Your task to perform on an android device: Show the shopping cart on target.com. Search for logitech g502 on target.com, select the first entry, add it to the cart, then select checkout. Image 0: 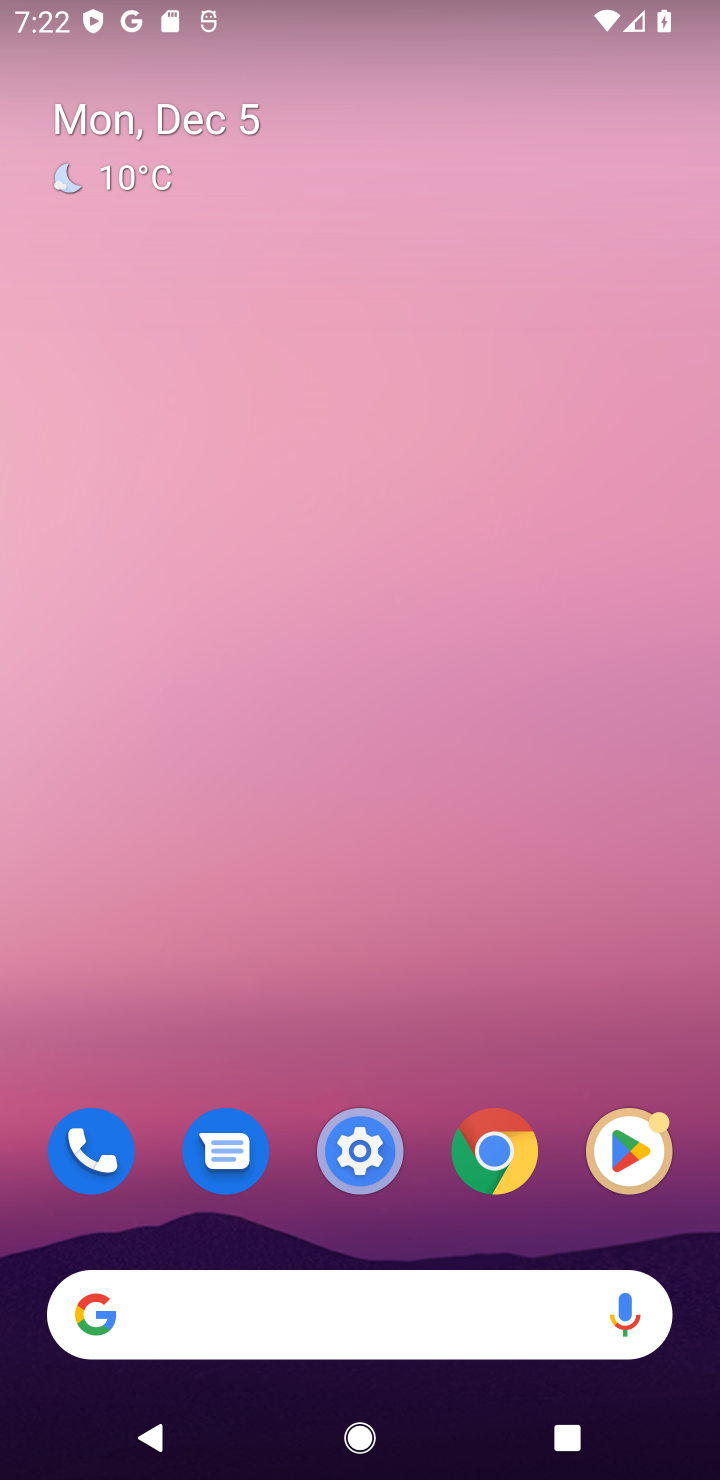
Step 0: click (370, 1342)
Your task to perform on an android device: Show the shopping cart on target.com. Search for logitech g502 on target.com, select the first entry, add it to the cart, then select checkout. Image 1: 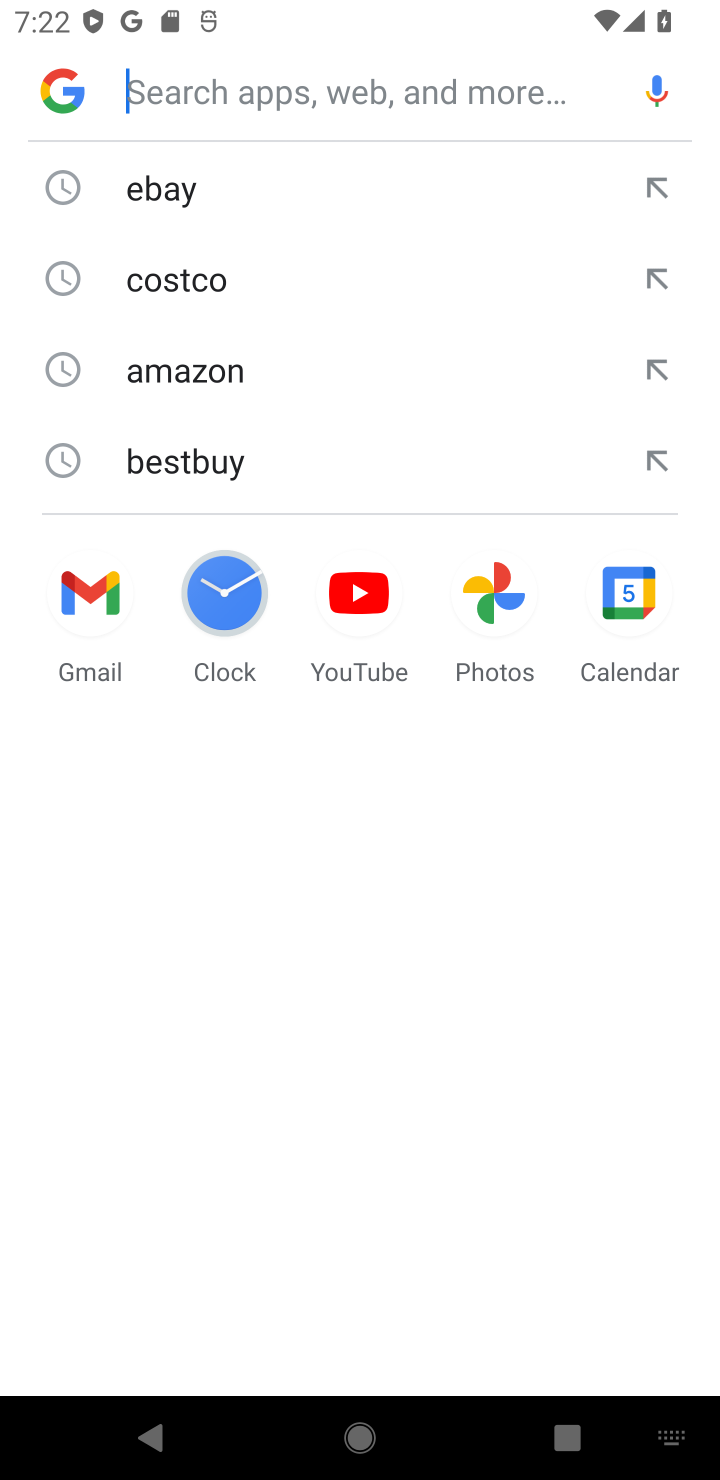
Step 1: type "target"
Your task to perform on an android device: Show the shopping cart on target.com. Search for logitech g502 on target.com, select the first entry, add it to the cart, then select checkout. Image 2: 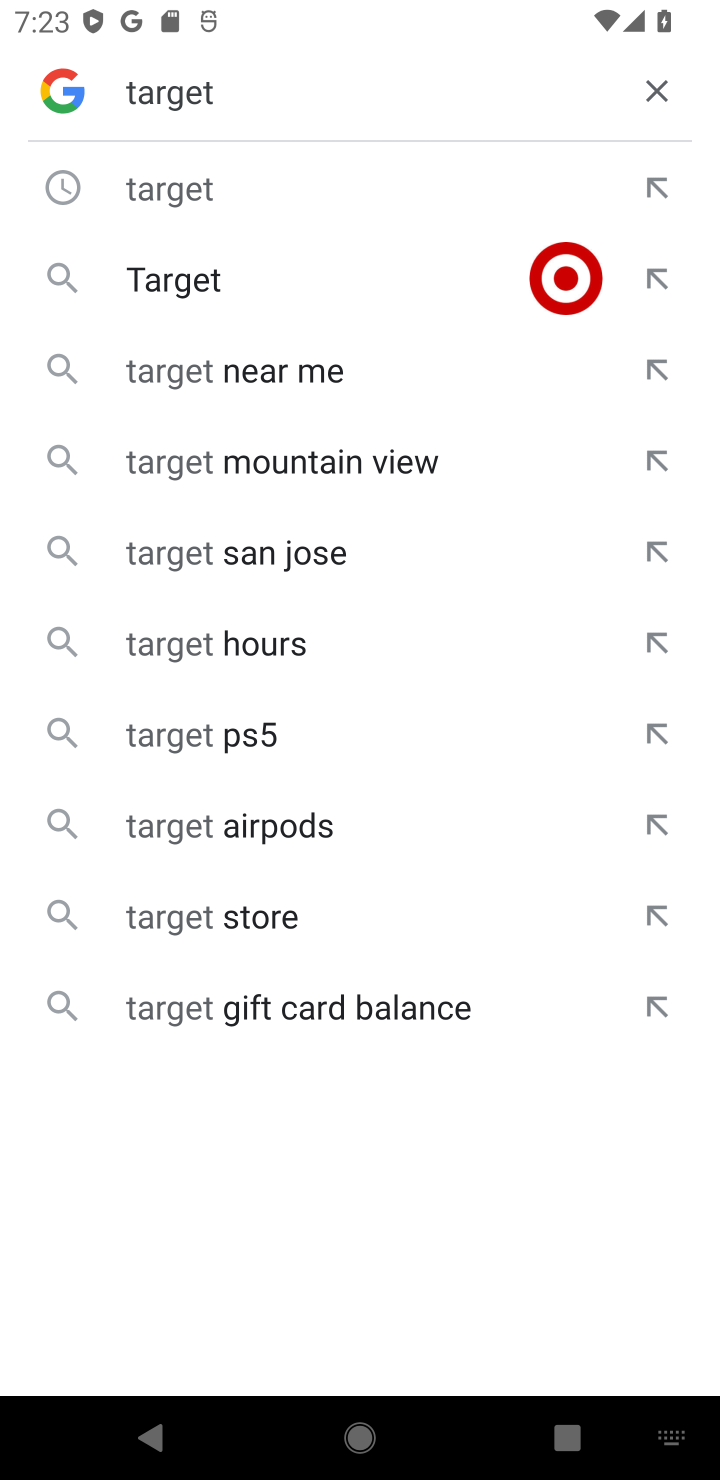
Step 2: click (168, 294)
Your task to perform on an android device: Show the shopping cart on target.com. Search for logitech g502 on target.com, select the first entry, add it to the cart, then select checkout. Image 3: 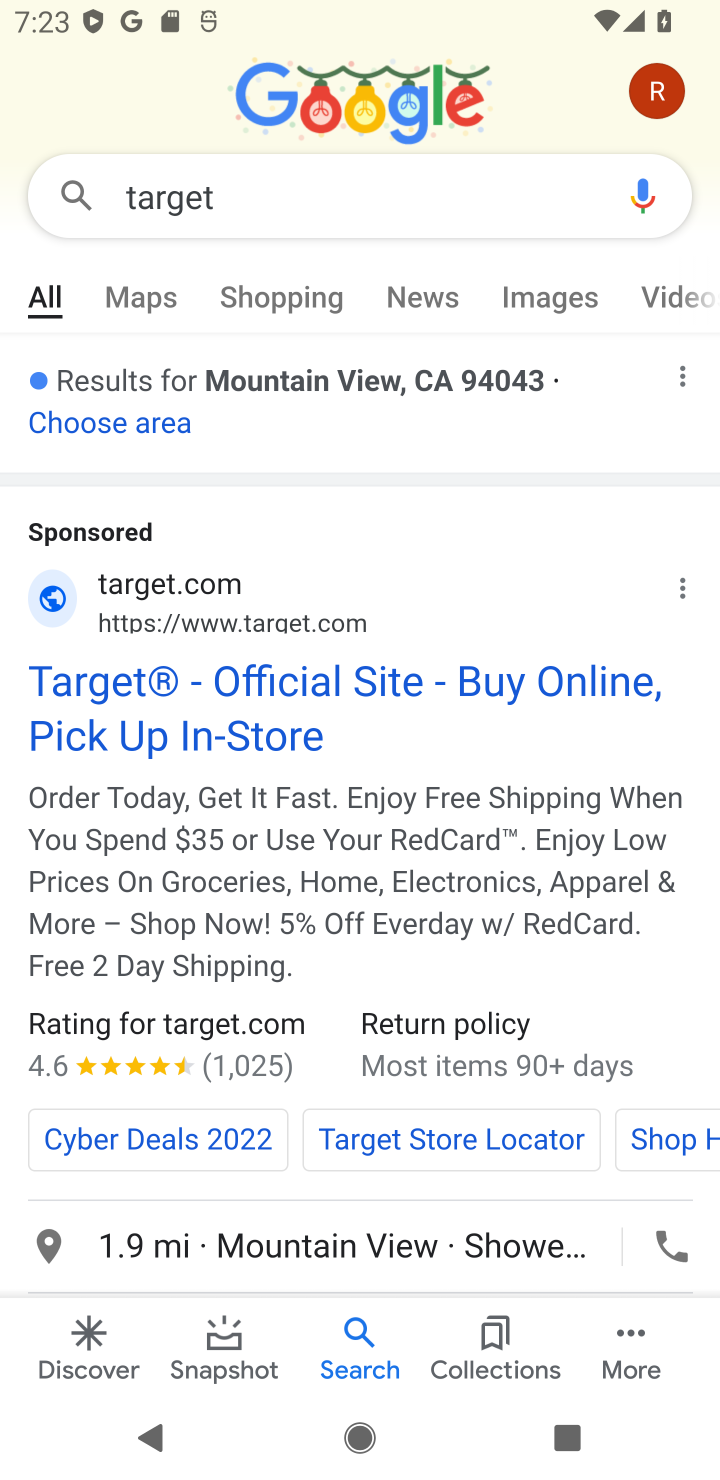
Step 3: click (172, 748)
Your task to perform on an android device: Show the shopping cart on target.com. Search for logitech g502 on target.com, select the first entry, add it to the cart, then select checkout. Image 4: 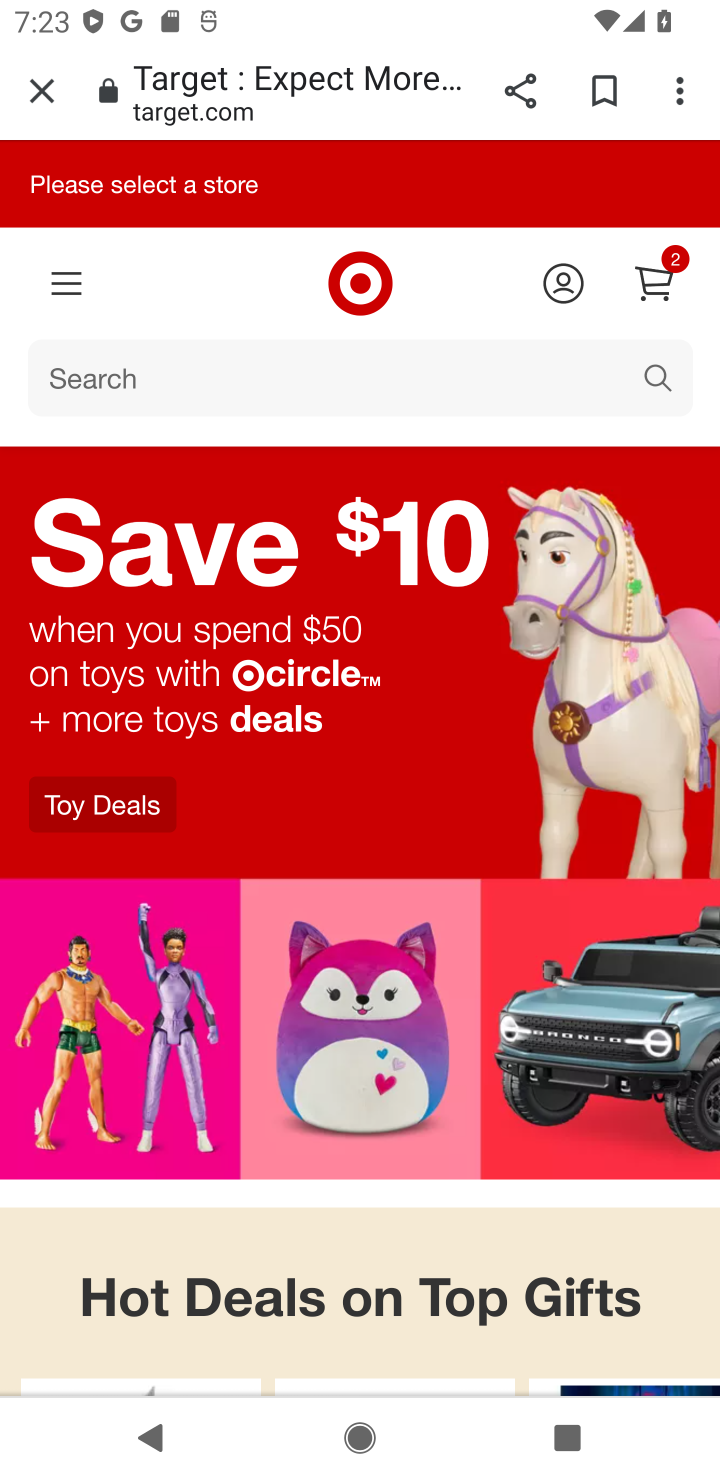
Step 4: click (378, 370)
Your task to perform on an android device: Show the shopping cart on target.com. Search for logitech g502 on target.com, select the first entry, add it to the cart, then select checkout. Image 5: 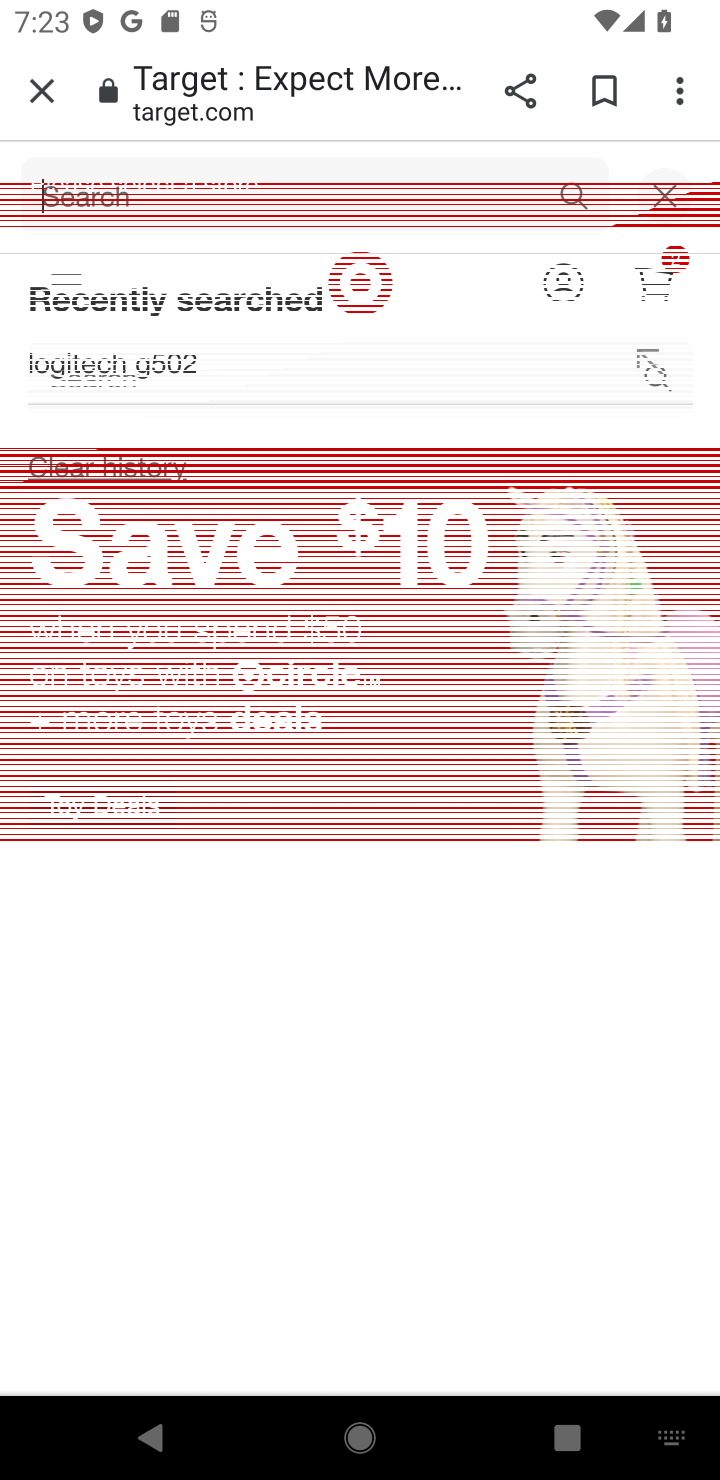
Step 5: type "logitech g502"
Your task to perform on an android device: Show the shopping cart on target.com. Search for logitech g502 on target.com, select the first entry, add it to the cart, then select checkout. Image 6: 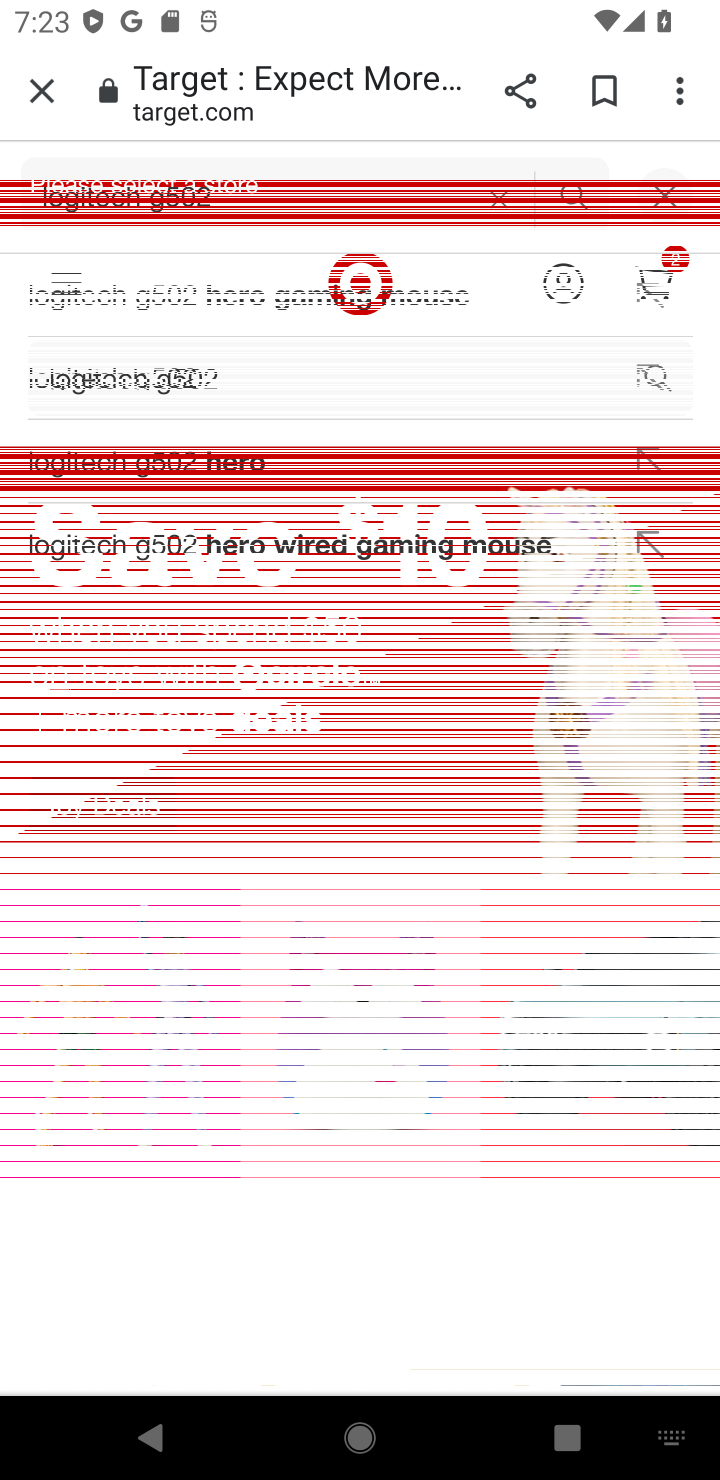
Step 6: click (247, 360)
Your task to perform on an android device: Show the shopping cart on target.com. Search for logitech g502 on target.com, select the first entry, add it to the cart, then select checkout. Image 7: 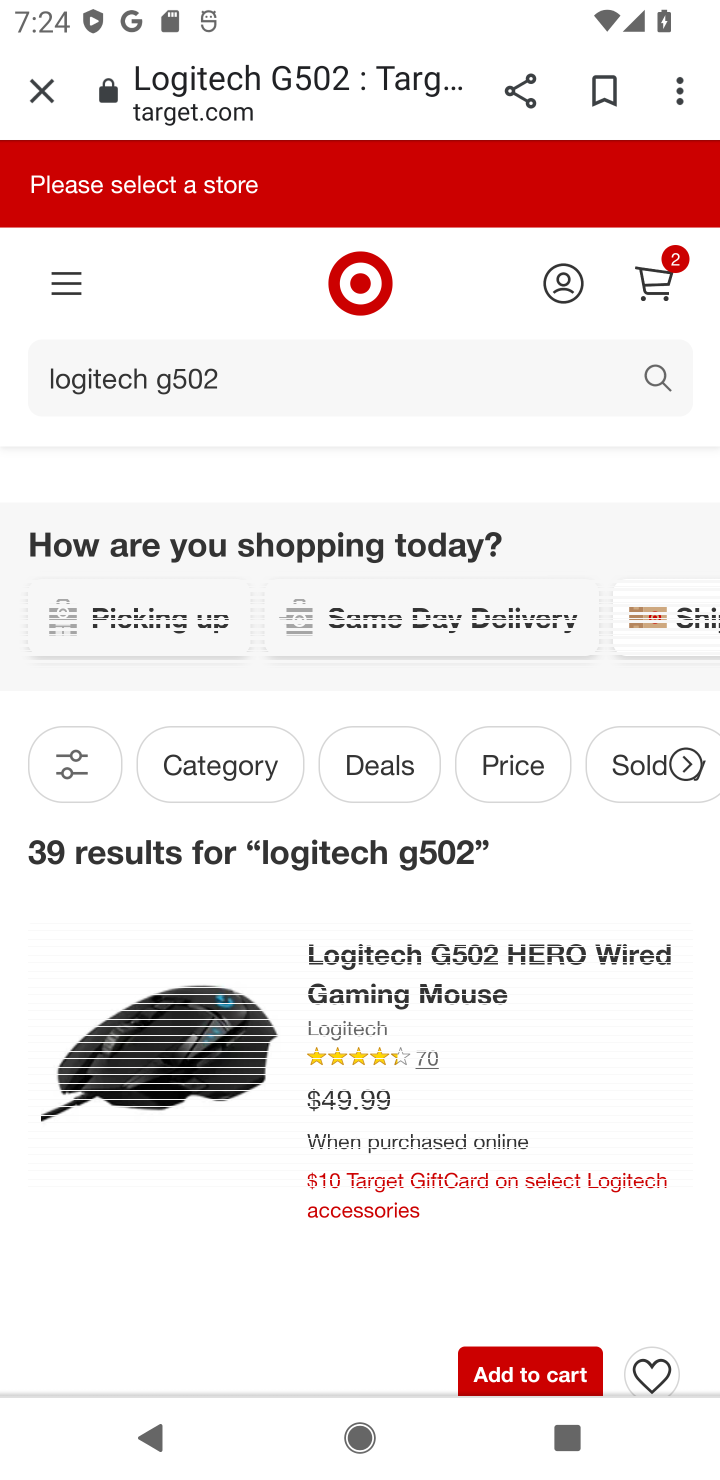
Step 7: click (488, 1360)
Your task to perform on an android device: Show the shopping cart on target.com. Search for logitech g502 on target.com, select the first entry, add it to the cart, then select checkout. Image 8: 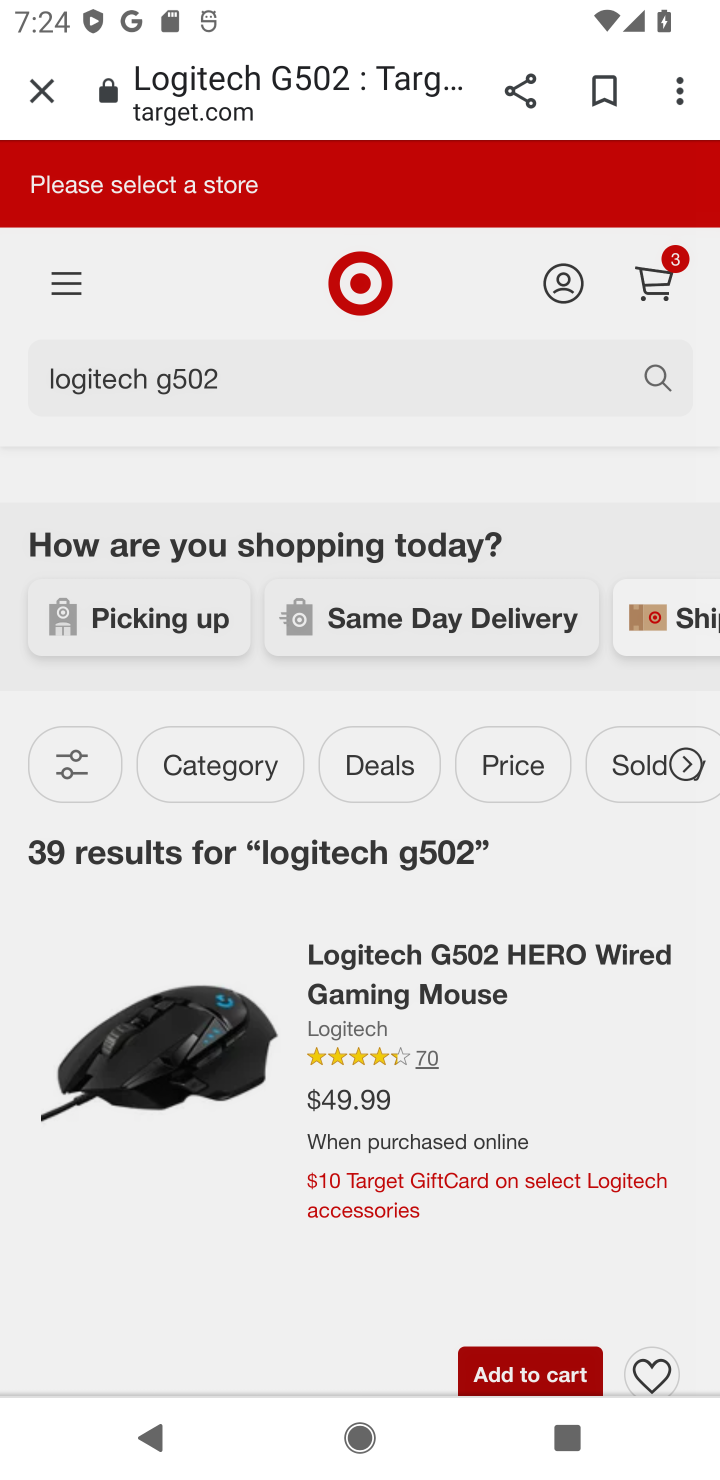
Step 8: task complete